Your task to perform on an android device: turn on location history Image 0: 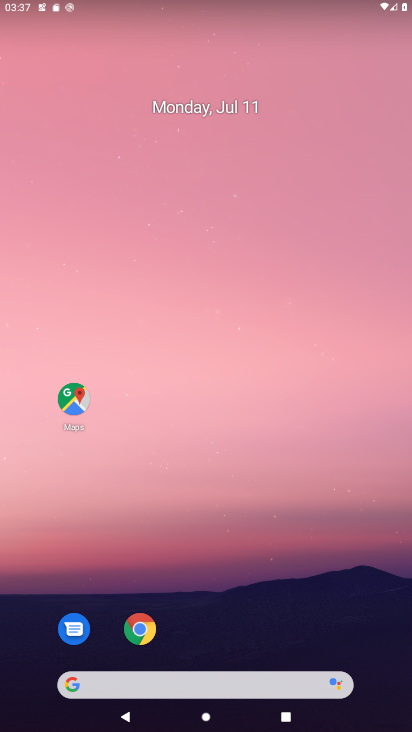
Step 0: drag from (246, 486) to (299, 0)
Your task to perform on an android device: turn on location history Image 1: 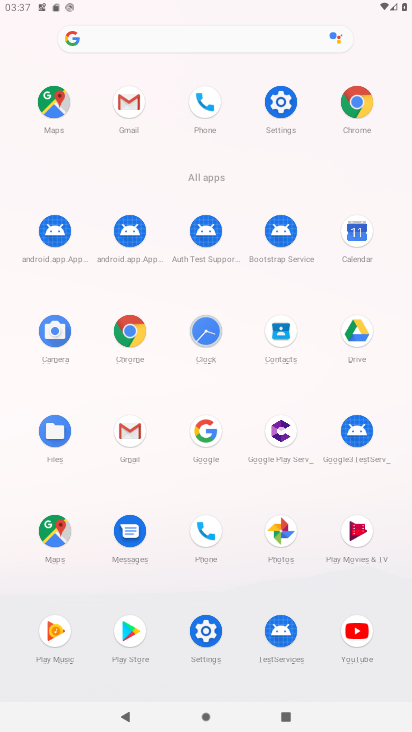
Step 1: click (282, 95)
Your task to perform on an android device: turn on location history Image 2: 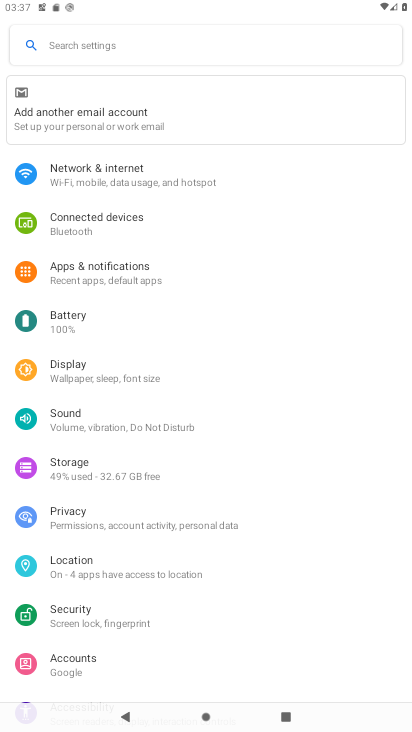
Step 2: click (94, 561)
Your task to perform on an android device: turn on location history Image 3: 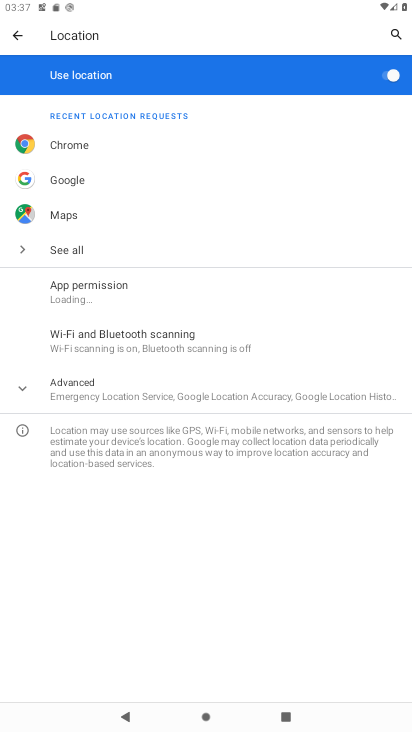
Step 3: click (150, 388)
Your task to perform on an android device: turn on location history Image 4: 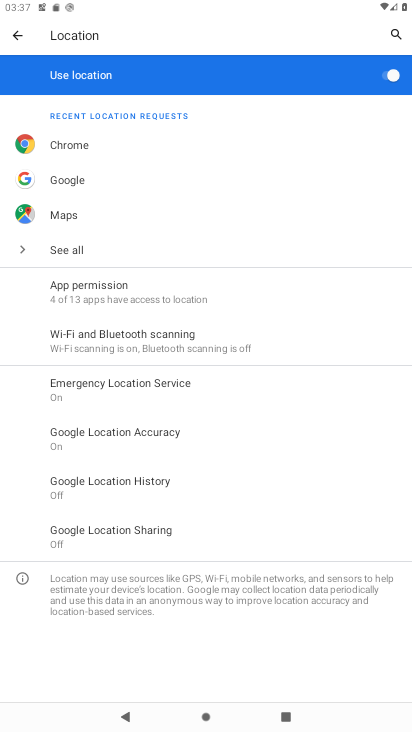
Step 4: click (117, 488)
Your task to perform on an android device: turn on location history Image 5: 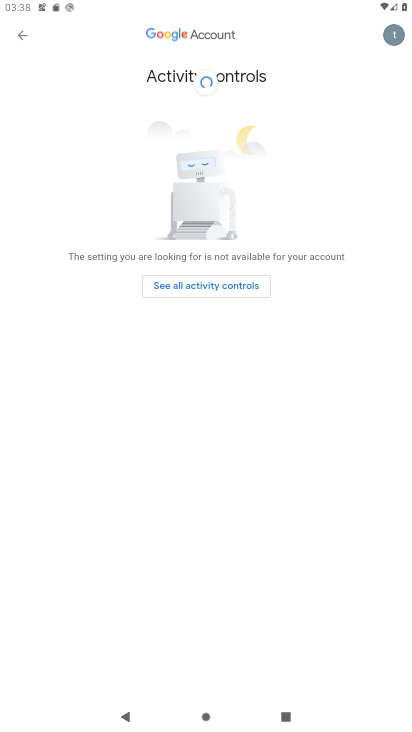
Step 5: click (27, 37)
Your task to perform on an android device: turn on location history Image 6: 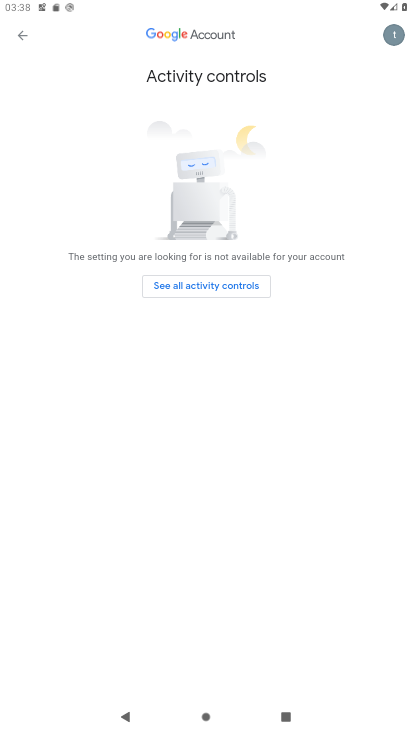
Step 6: click (19, 33)
Your task to perform on an android device: turn on location history Image 7: 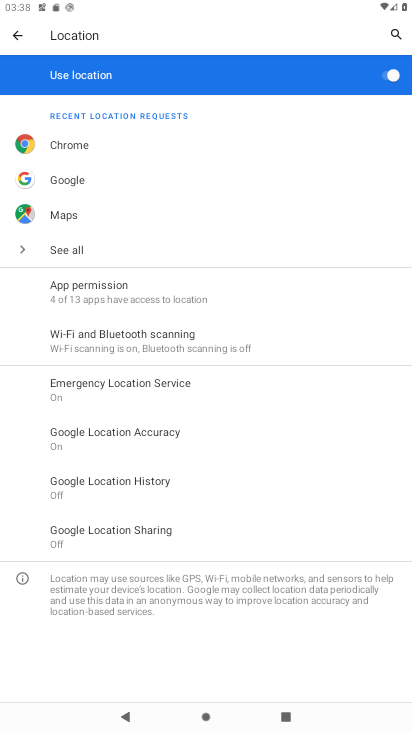
Step 7: click (139, 488)
Your task to perform on an android device: turn on location history Image 8: 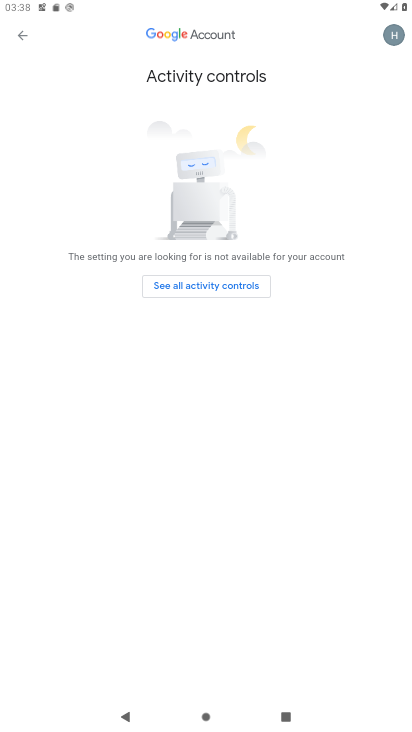
Step 8: task complete